Your task to perform on an android device: open device folders in google photos Image 0: 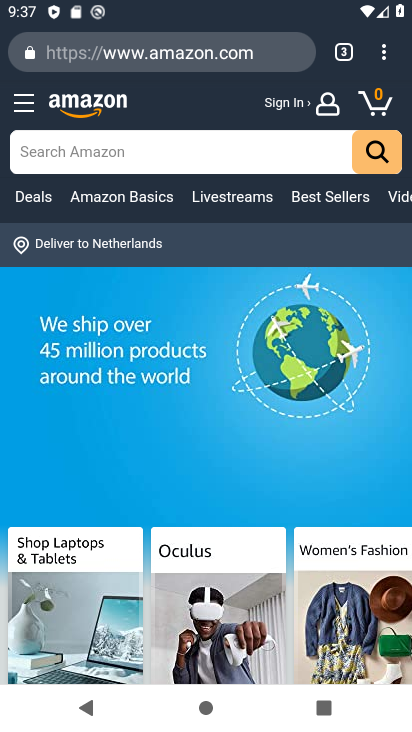
Step 0: press home button
Your task to perform on an android device: open device folders in google photos Image 1: 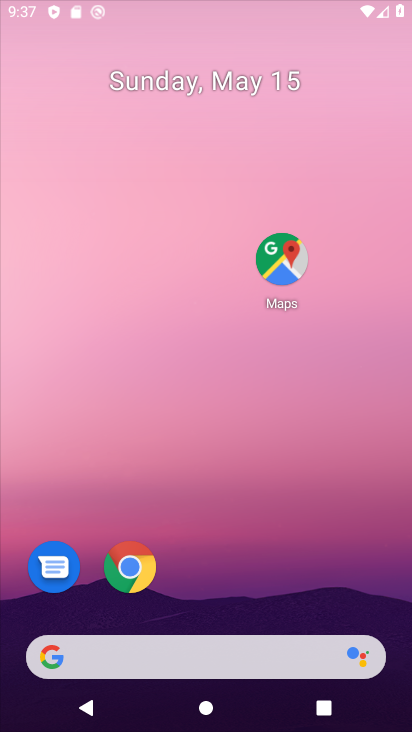
Step 1: drag from (239, 582) to (229, 95)
Your task to perform on an android device: open device folders in google photos Image 2: 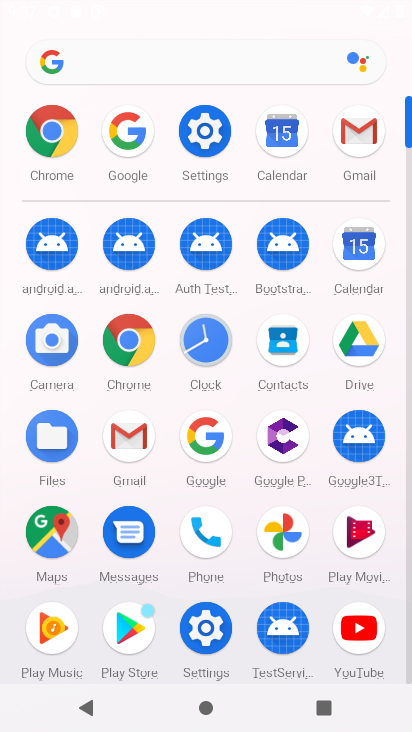
Step 2: click (278, 533)
Your task to perform on an android device: open device folders in google photos Image 3: 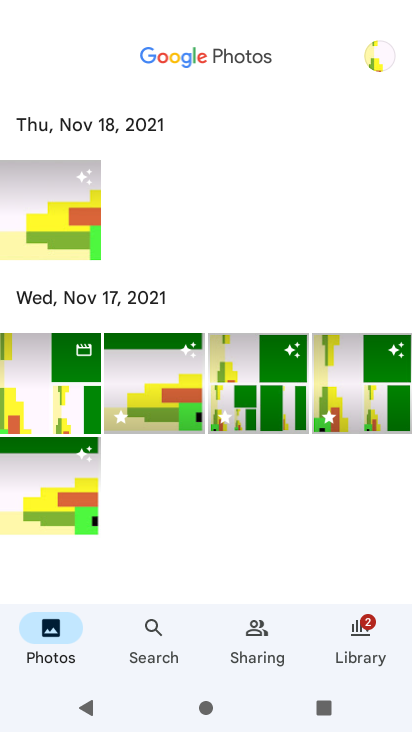
Step 3: task complete